Your task to perform on an android device: manage bookmarks in the chrome app Image 0: 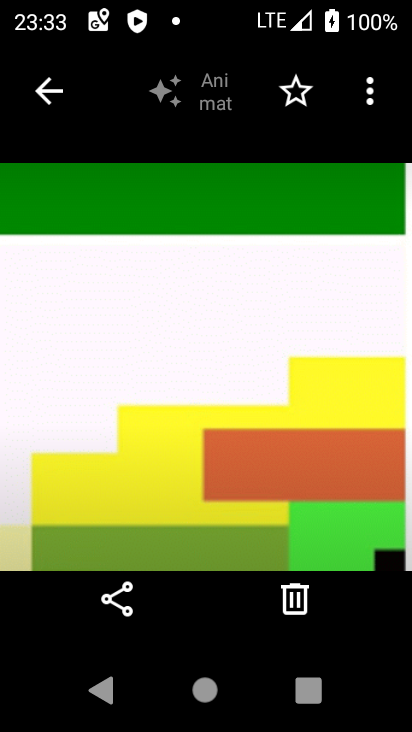
Step 0: press home button
Your task to perform on an android device: manage bookmarks in the chrome app Image 1: 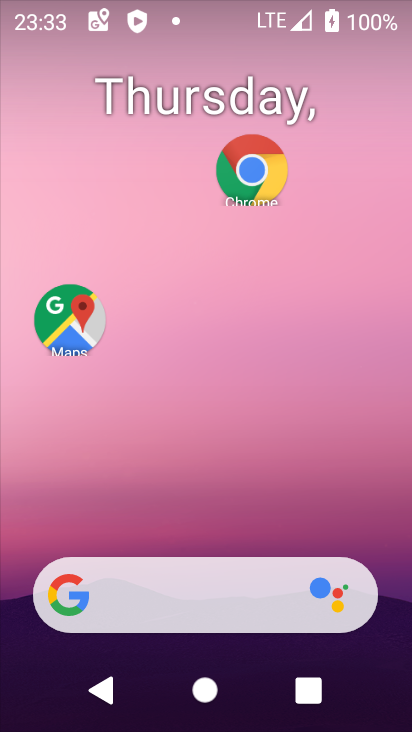
Step 1: click (252, 184)
Your task to perform on an android device: manage bookmarks in the chrome app Image 2: 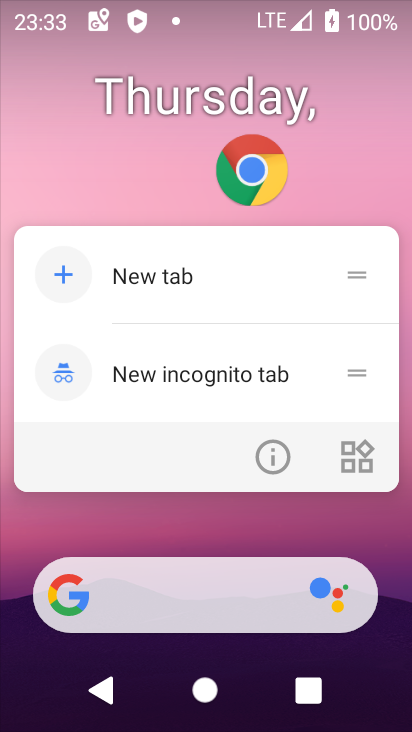
Step 2: click (248, 177)
Your task to perform on an android device: manage bookmarks in the chrome app Image 3: 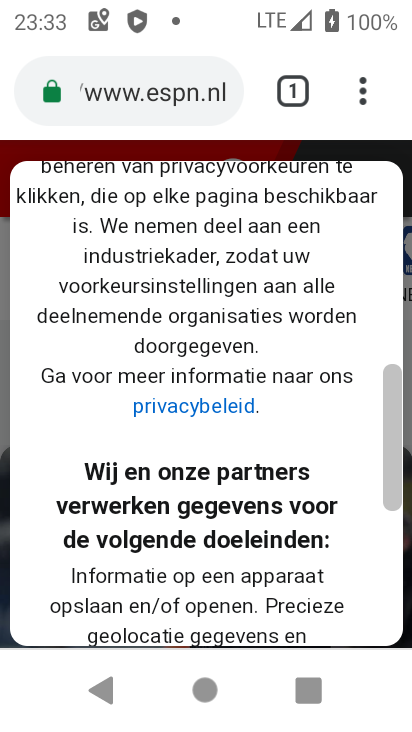
Step 3: click (359, 81)
Your task to perform on an android device: manage bookmarks in the chrome app Image 4: 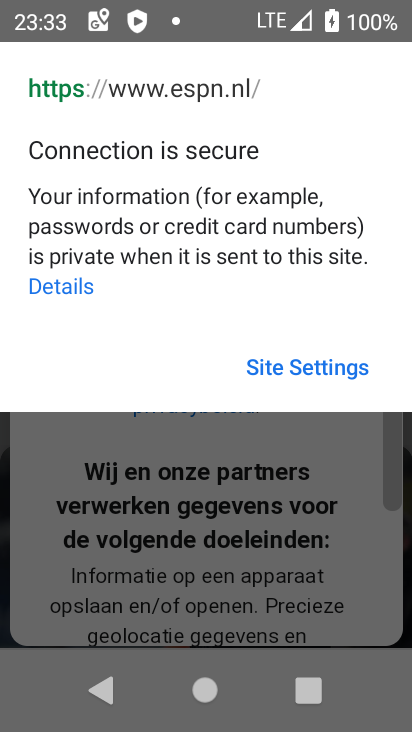
Step 4: click (105, 477)
Your task to perform on an android device: manage bookmarks in the chrome app Image 5: 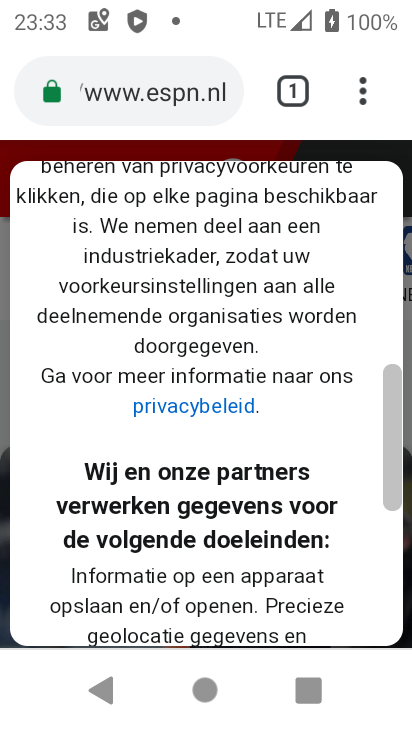
Step 5: click (294, 101)
Your task to perform on an android device: manage bookmarks in the chrome app Image 6: 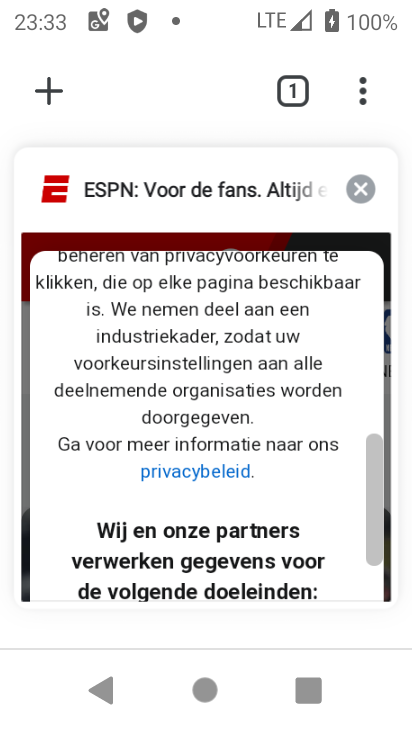
Step 6: click (358, 184)
Your task to perform on an android device: manage bookmarks in the chrome app Image 7: 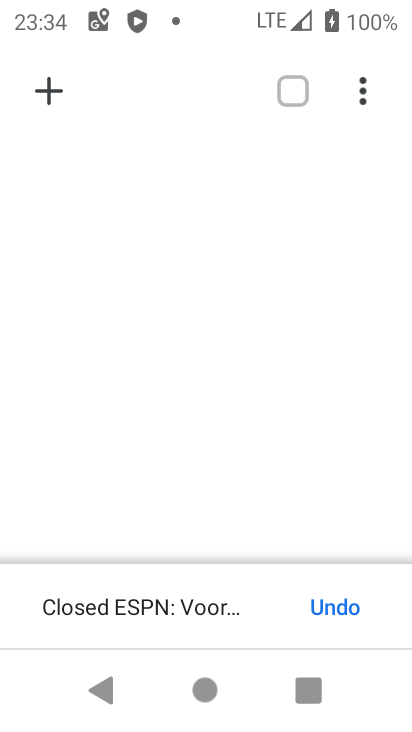
Step 7: click (41, 89)
Your task to perform on an android device: manage bookmarks in the chrome app Image 8: 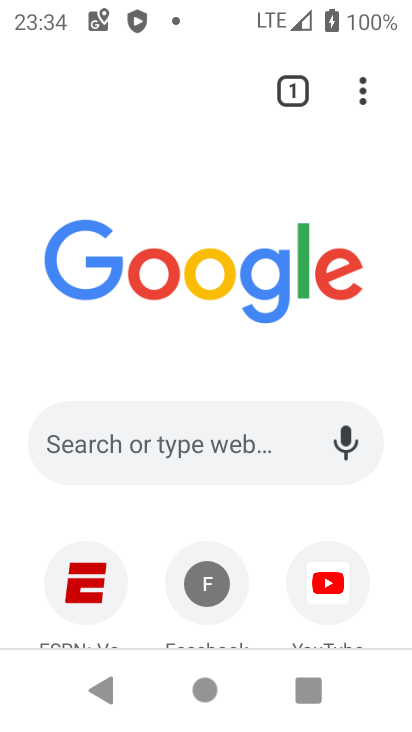
Step 8: click (364, 88)
Your task to perform on an android device: manage bookmarks in the chrome app Image 9: 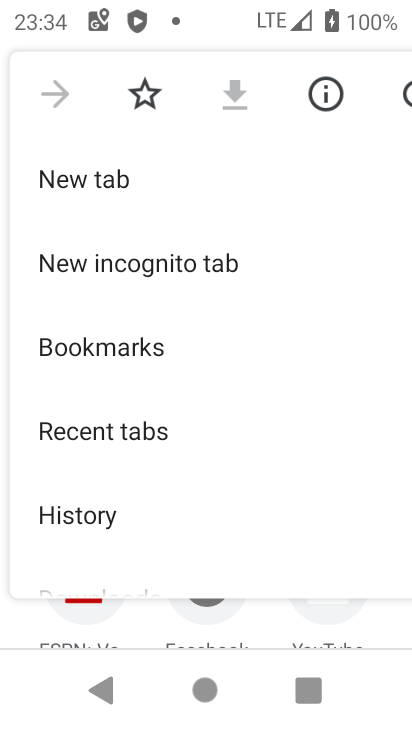
Step 9: click (101, 351)
Your task to perform on an android device: manage bookmarks in the chrome app Image 10: 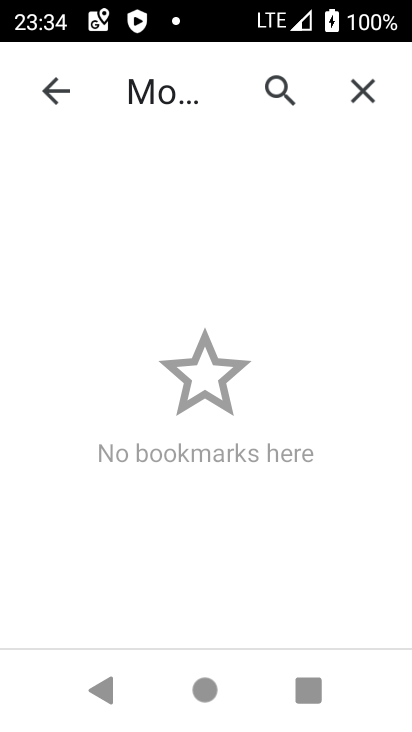
Step 10: task complete